Your task to perform on an android device: add a contact in the contacts app Image 0: 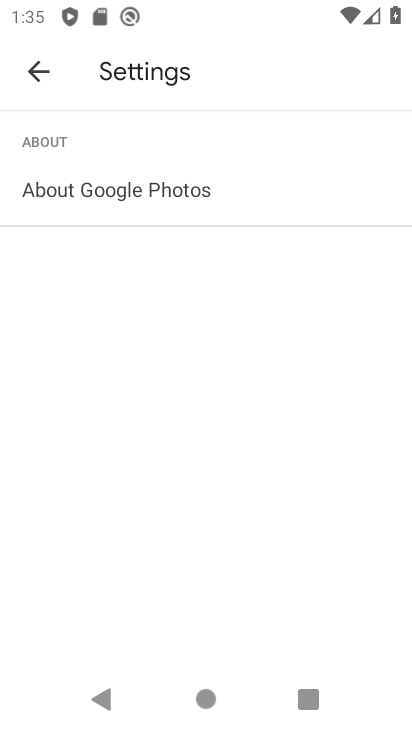
Step 0: press back button
Your task to perform on an android device: add a contact in the contacts app Image 1: 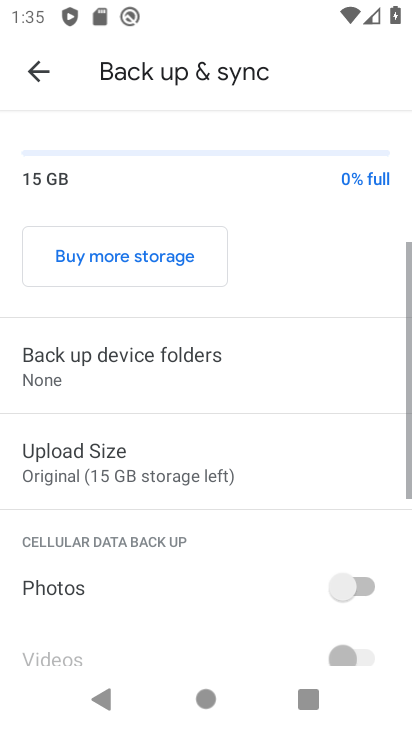
Step 1: press back button
Your task to perform on an android device: add a contact in the contacts app Image 2: 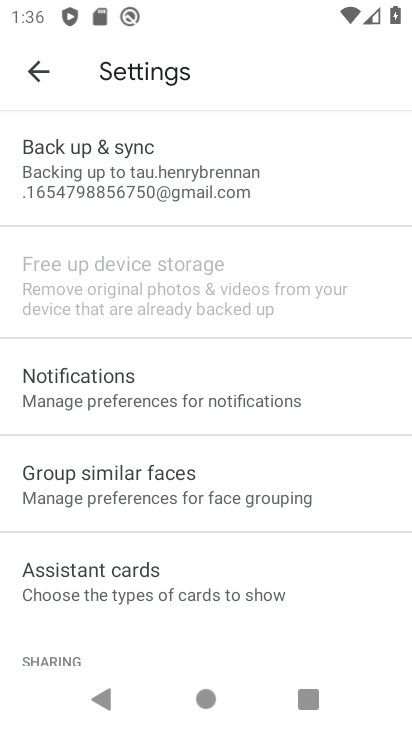
Step 2: press back button
Your task to perform on an android device: add a contact in the contacts app Image 3: 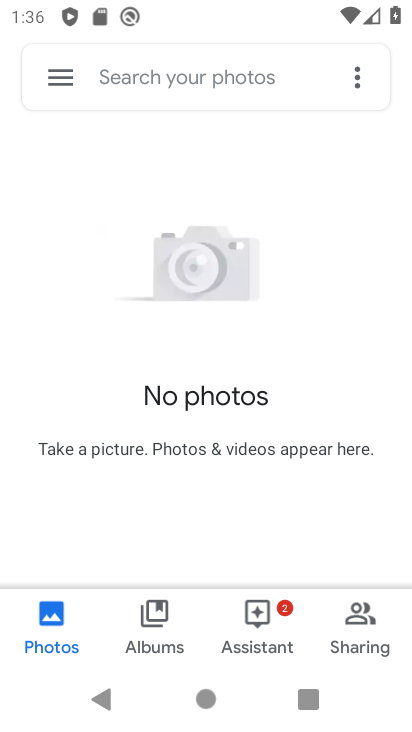
Step 3: press back button
Your task to perform on an android device: add a contact in the contacts app Image 4: 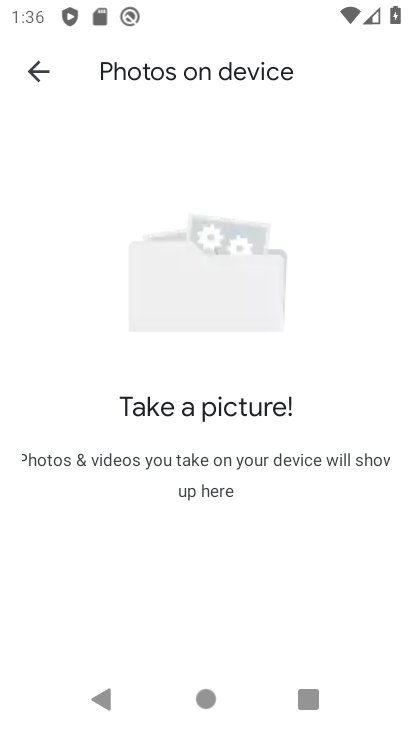
Step 4: press back button
Your task to perform on an android device: add a contact in the contacts app Image 5: 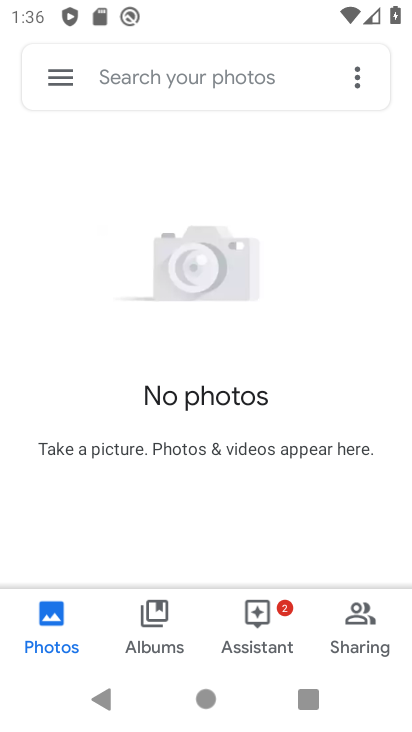
Step 5: press back button
Your task to perform on an android device: add a contact in the contacts app Image 6: 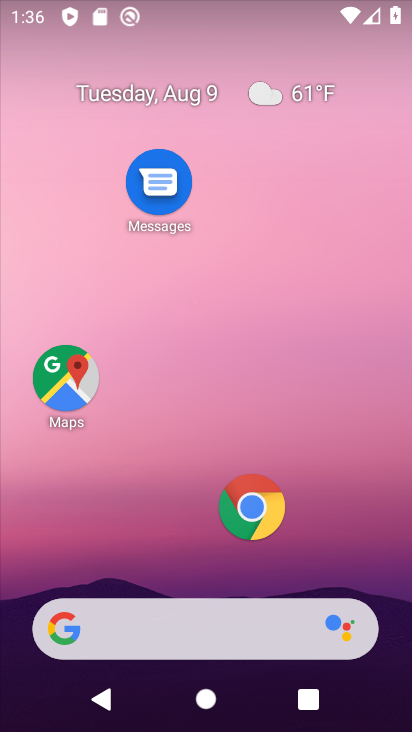
Step 6: drag from (112, 566) to (235, 26)
Your task to perform on an android device: add a contact in the contacts app Image 7: 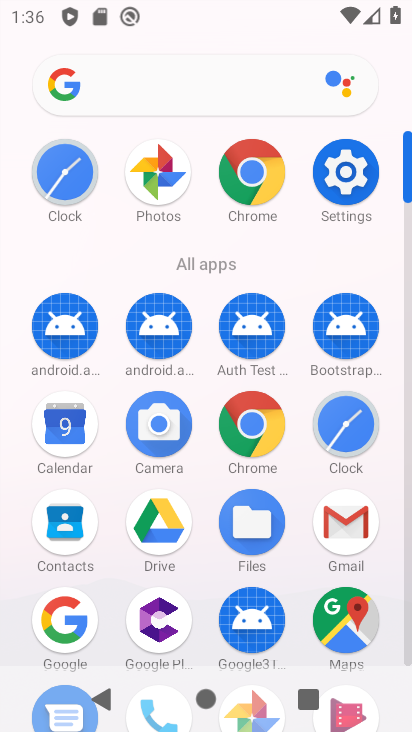
Step 7: click (49, 526)
Your task to perform on an android device: add a contact in the contacts app Image 8: 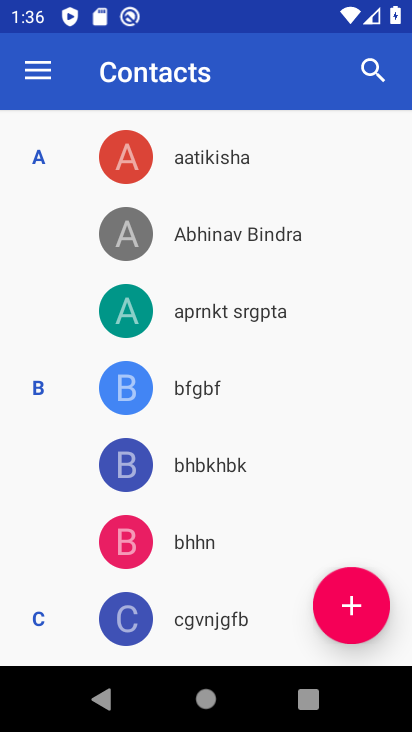
Step 8: click (316, 594)
Your task to perform on an android device: add a contact in the contacts app Image 9: 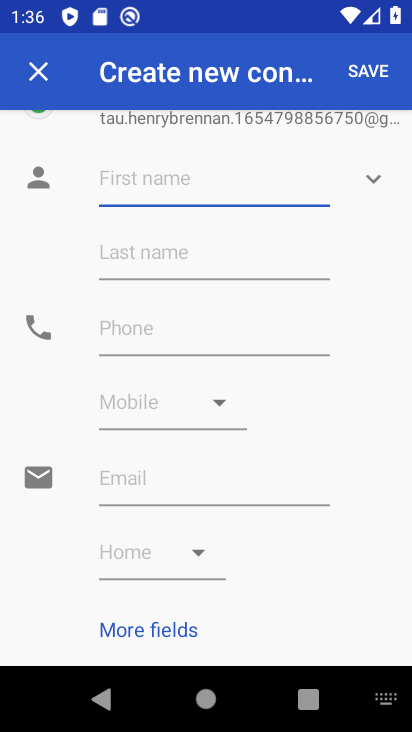
Step 9: click (145, 185)
Your task to perform on an android device: add a contact in the contacts app Image 10: 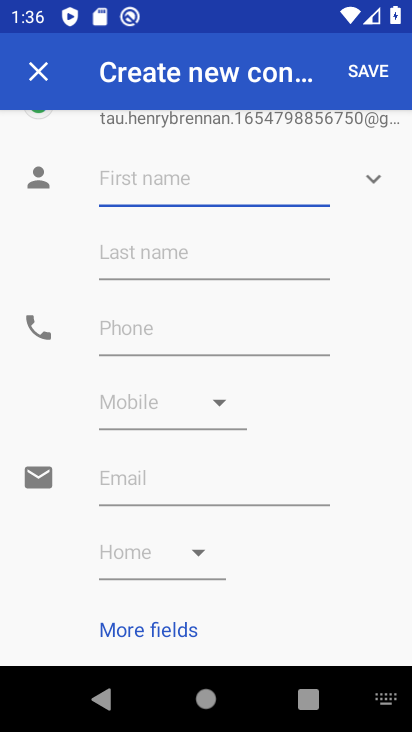
Step 10: type "dfvfv"
Your task to perform on an android device: add a contact in the contacts app Image 11: 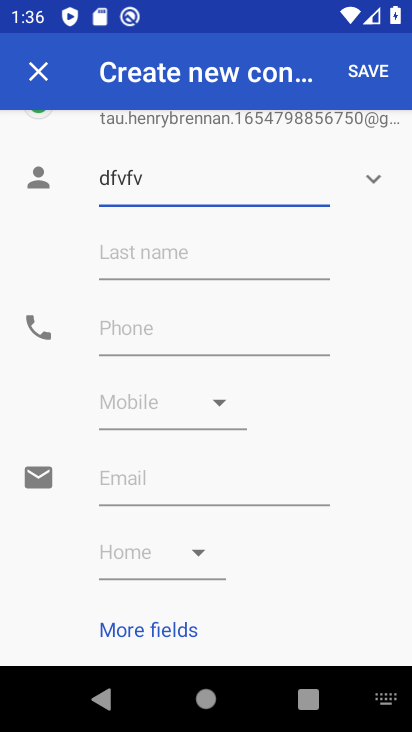
Step 11: click (154, 338)
Your task to perform on an android device: add a contact in the contacts app Image 12: 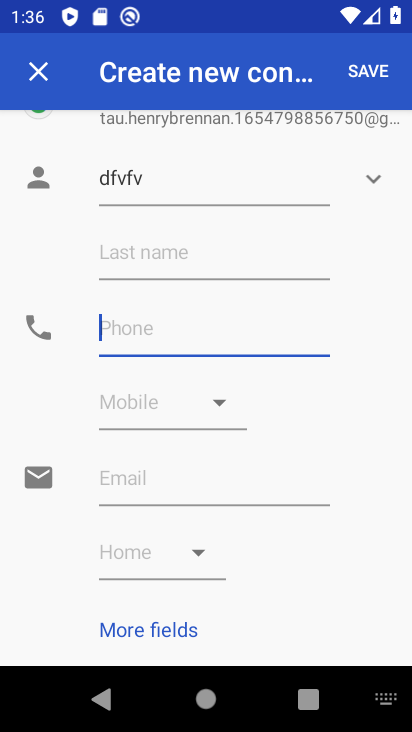
Step 12: type "676767"
Your task to perform on an android device: add a contact in the contacts app Image 13: 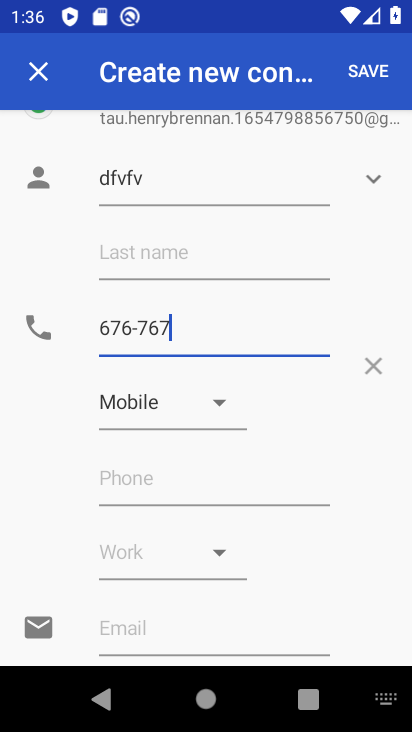
Step 13: click (363, 64)
Your task to perform on an android device: add a contact in the contacts app Image 14: 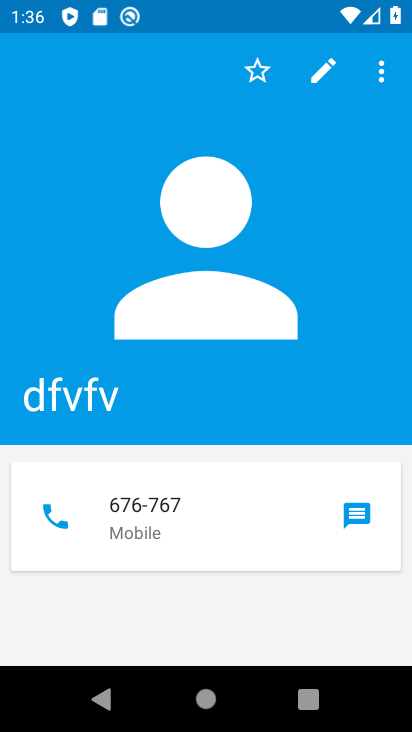
Step 14: task complete